Your task to perform on an android device: Show me some nice wallpapers for my tablet Image 0: 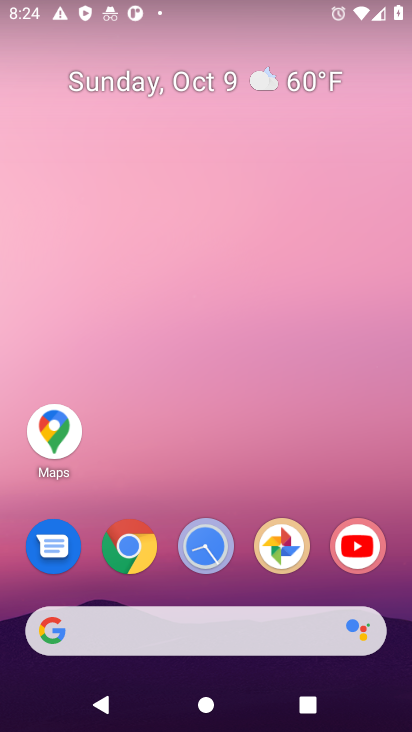
Step 0: click (127, 554)
Your task to perform on an android device: Show me some nice wallpapers for my tablet Image 1: 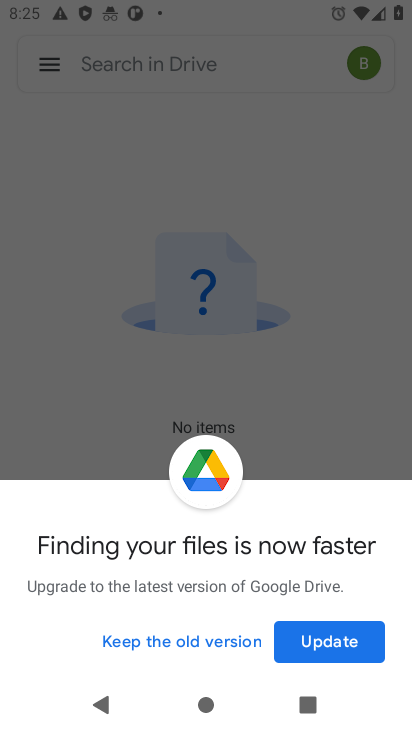
Step 1: click (228, 643)
Your task to perform on an android device: Show me some nice wallpapers for my tablet Image 2: 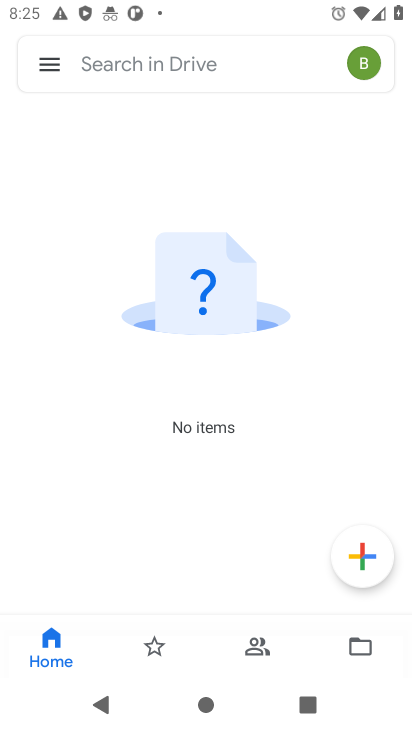
Step 2: press home button
Your task to perform on an android device: Show me some nice wallpapers for my tablet Image 3: 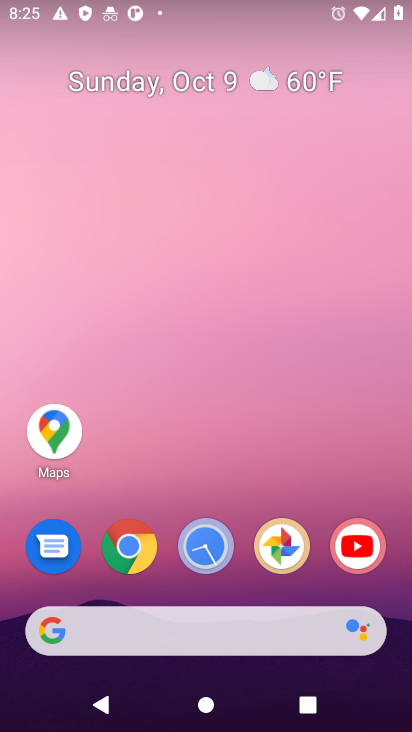
Step 3: click (135, 541)
Your task to perform on an android device: Show me some nice wallpapers for my tablet Image 4: 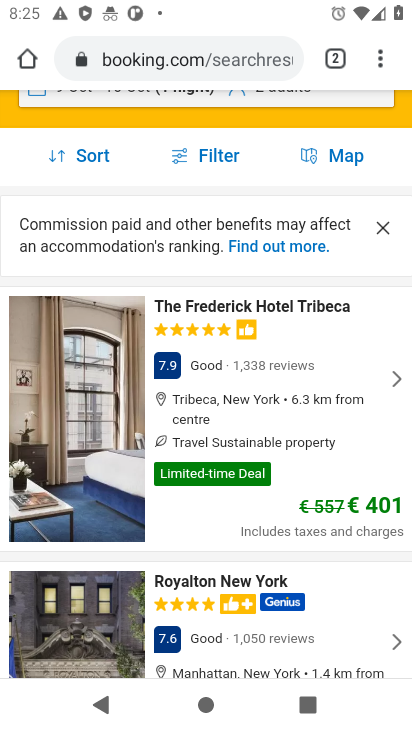
Step 4: click (218, 68)
Your task to perform on an android device: Show me some nice wallpapers for my tablet Image 5: 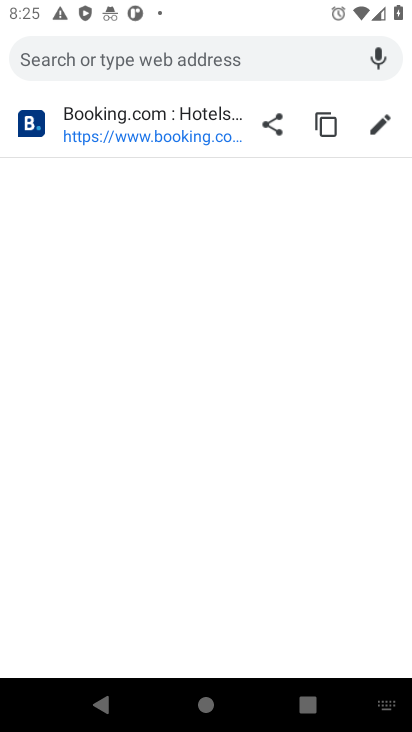
Step 5: type "nice wallpaper for my tablet"
Your task to perform on an android device: Show me some nice wallpapers for my tablet Image 6: 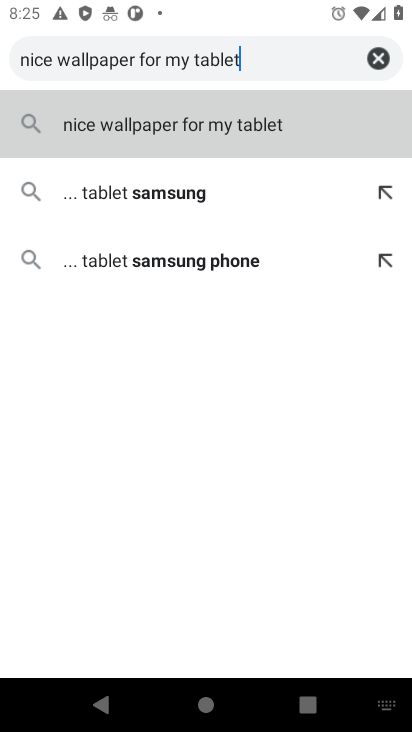
Step 6: press enter
Your task to perform on an android device: Show me some nice wallpapers for my tablet Image 7: 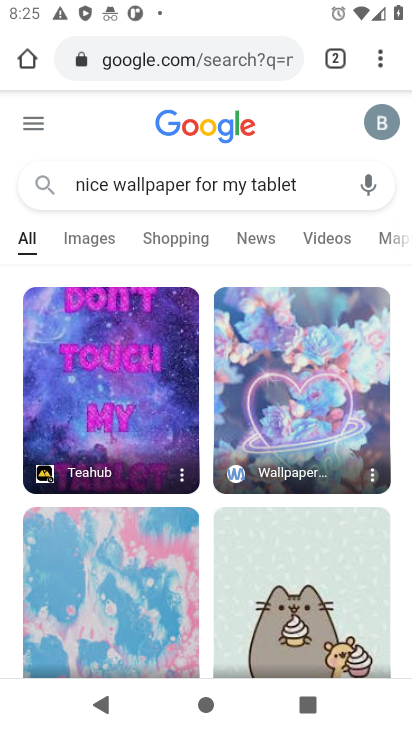
Step 7: drag from (197, 575) to (223, 396)
Your task to perform on an android device: Show me some nice wallpapers for my tablet Image 8: 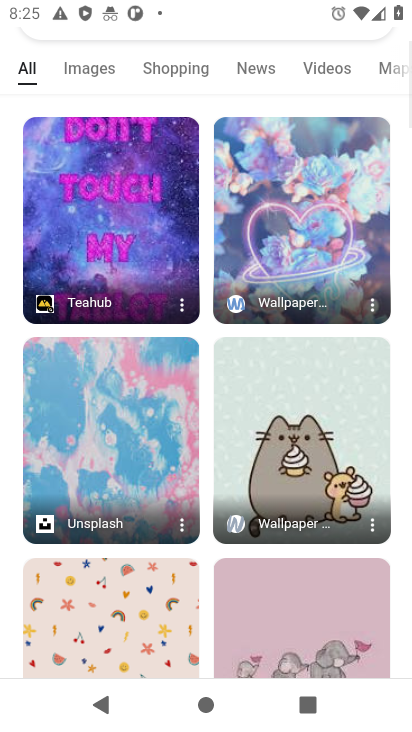
Step 8: drag from (222, 551) to (249, 433)
Your task to perform on an android device: Show me some nice wallpapers for my tablet Image 9: 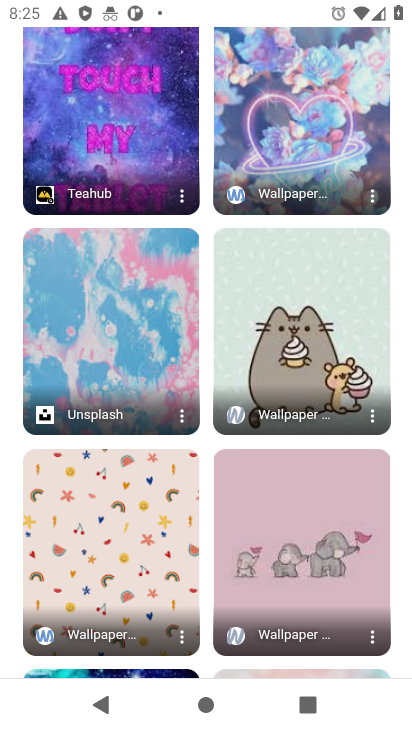
Step 9: drag from (113, 478) to (156, 321)
Your task to perform on an android device: Show me some nice wallpapers for my tablet Image 10: 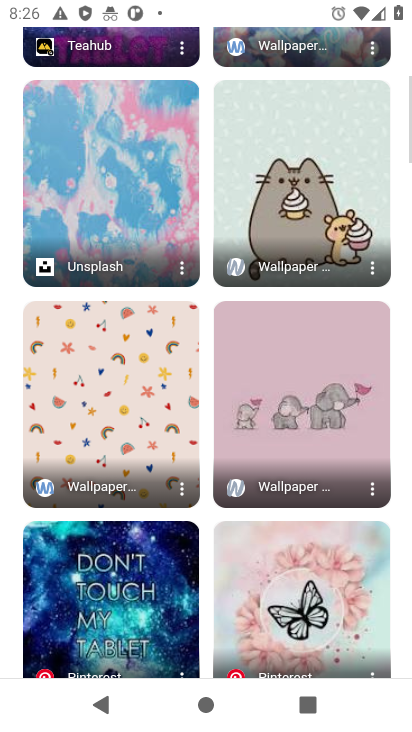
Step 10: drag from (174, 458) to (190, 393)
Your task to perform on an android device: Show me some nice wallpapers for my tablet Image 11: 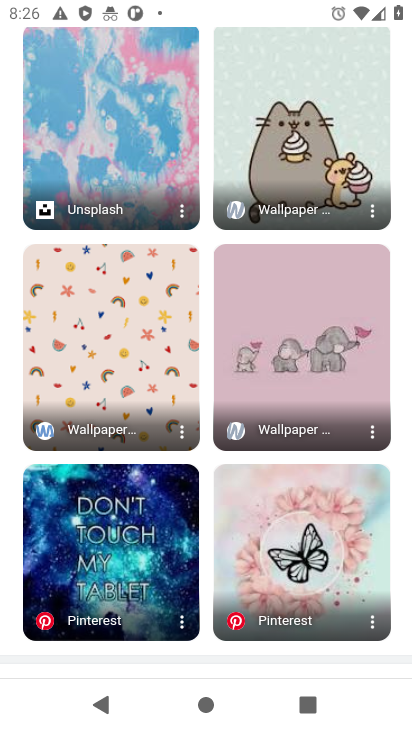
Step 11: drag from (190, 393) to (195, 316)
Your task to perform on an android device: Show me some nice wallpapers for my tablet Image 12: 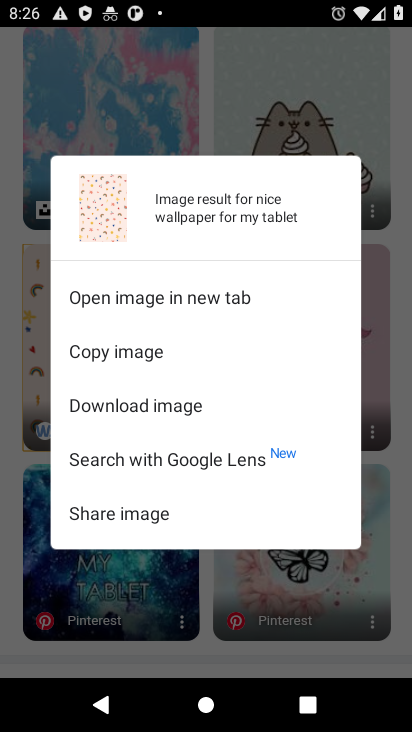
Step 12: click (276, 628)
Your task to perform on an android device: Show me some nice wallpapers for my tablet Image 13: 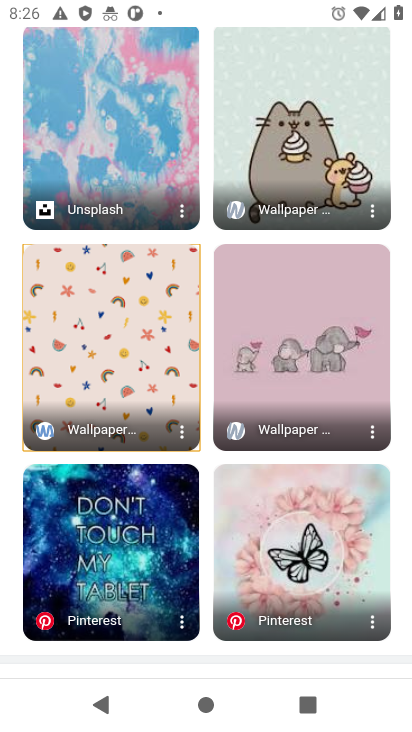
Step 13: task complete